Your task to perform on an android device: allow notifications from all sites in the chrome app Image 0: 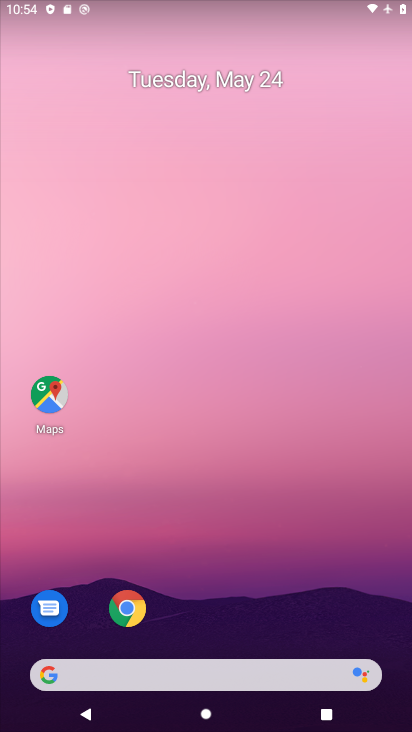
Step 0: click (127, 610)
Your task to perform on an android device: allow notifications from all sites in the chrome app Image 1: 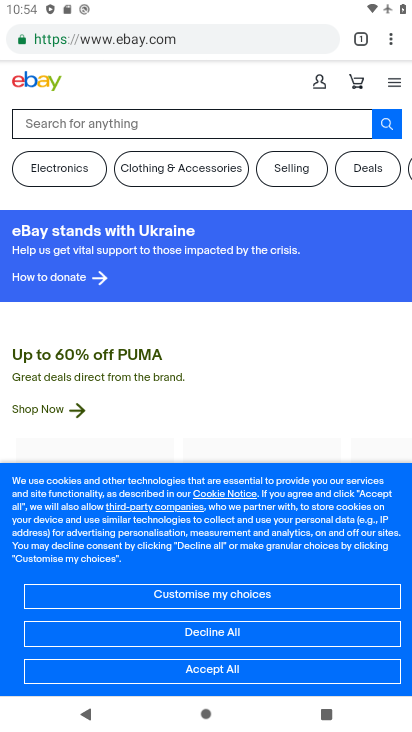
Step 1: click (391, 40)
Your task to perform on an android device: allow notifications from all sites in the chrome app Image 2: 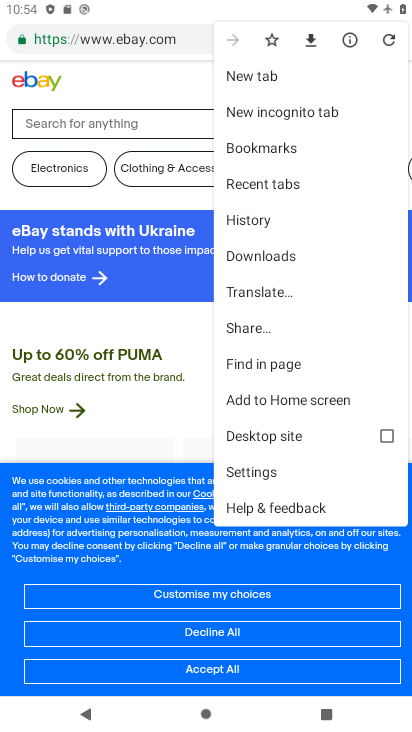
Step 2: click (263, 469)
Your task to perform on an android device: allow notifications from all sites in the chrome app Image 3: 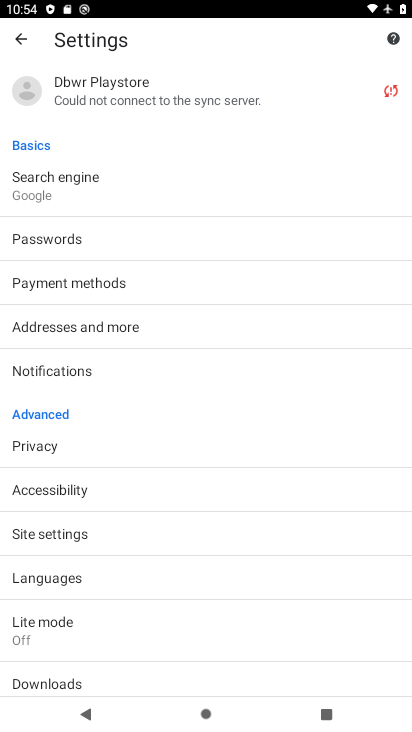
Step 3: drag from (188, 627) to (216, 415)
Your task to perform on an android device: allow notifications from all sites in the chrome app Image 4: 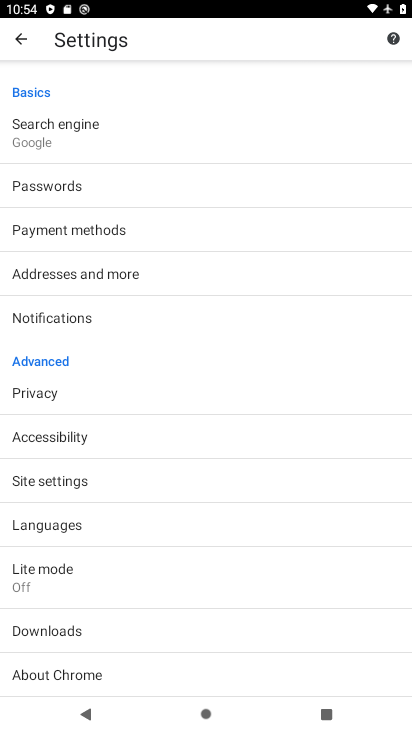
Step 4: click (49, 479)
Your task to perform on an android device: allow notifications from all sites in the chrome app Image 5: 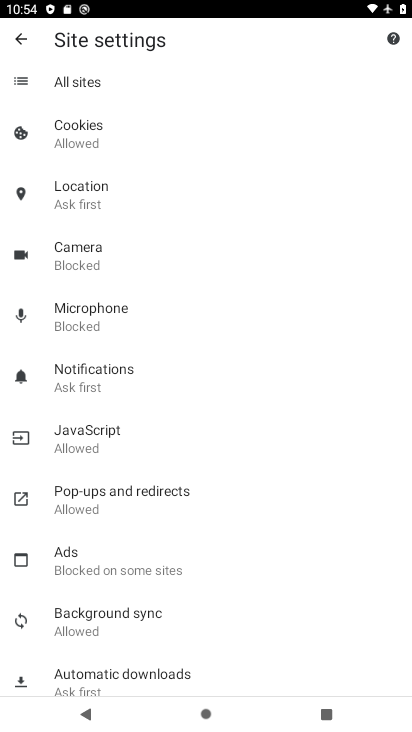
Step 5: click (101, 377)
Your task to perform on an android device: allow notifications from all sites in the chrome app Image 6: 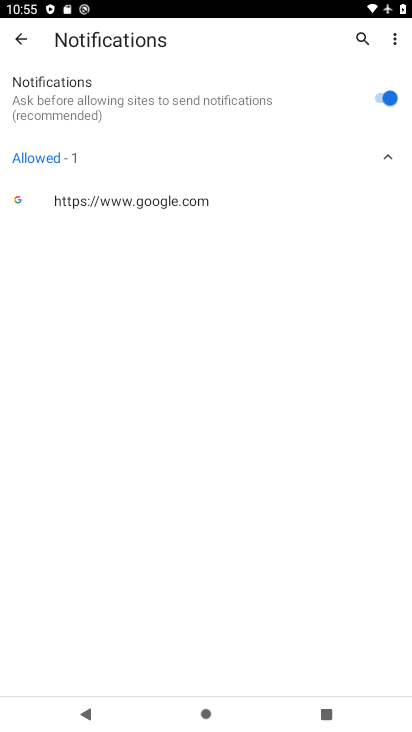
Step 6: task complete